Your task to perform on an android device: Turn on the flashlight Image 0: 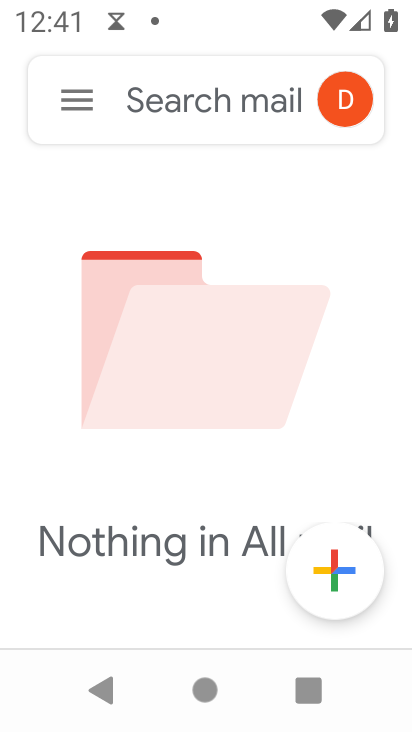
Step 0: press home button
Your task to perform on an android device: Turn on the flashlight Image 1: 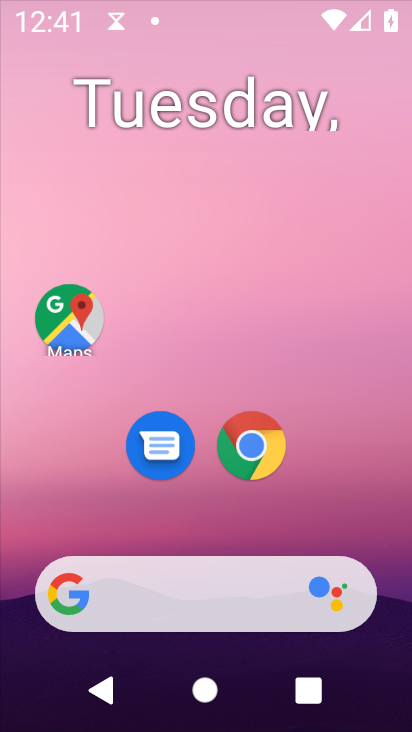
Step 1: drag from (269, 621) to (159, 23)
Your task to perform on an android device: Turn on the flashlight Image 2: 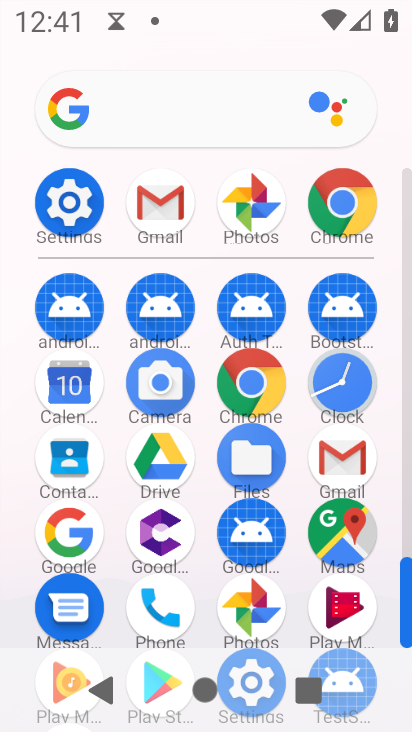
Step 2: click (77, 208)
Your task to perform on an android device: Turn on the flashlight Image 3: 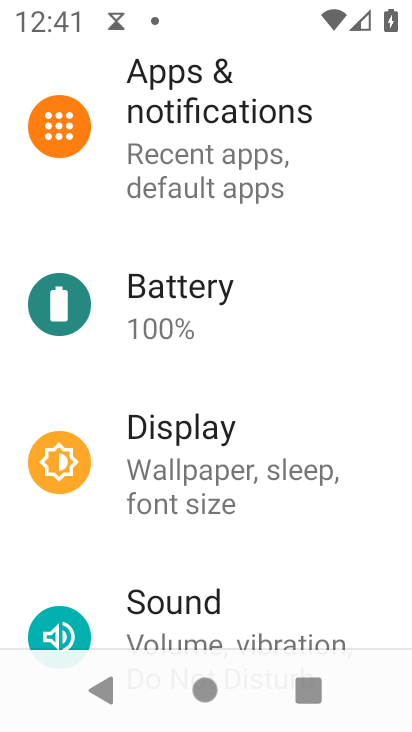
Step 3: task complete